Your task to perform on an android device: What's the weather going to be tomorrow? Image 0: 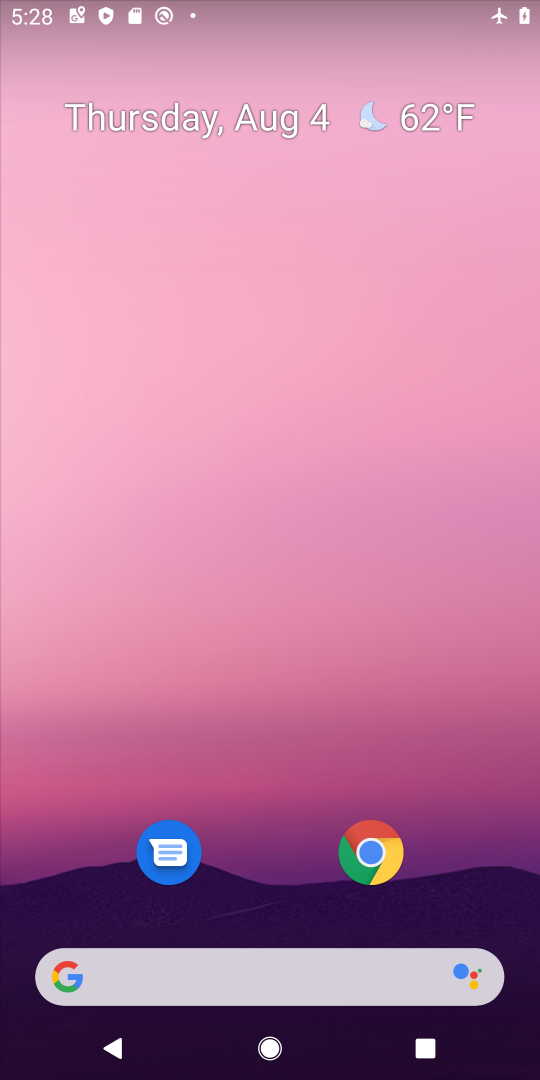
Step 0: press home button
Your task to perform on an android device: What's the weather going to be tomorrow? Image 1: 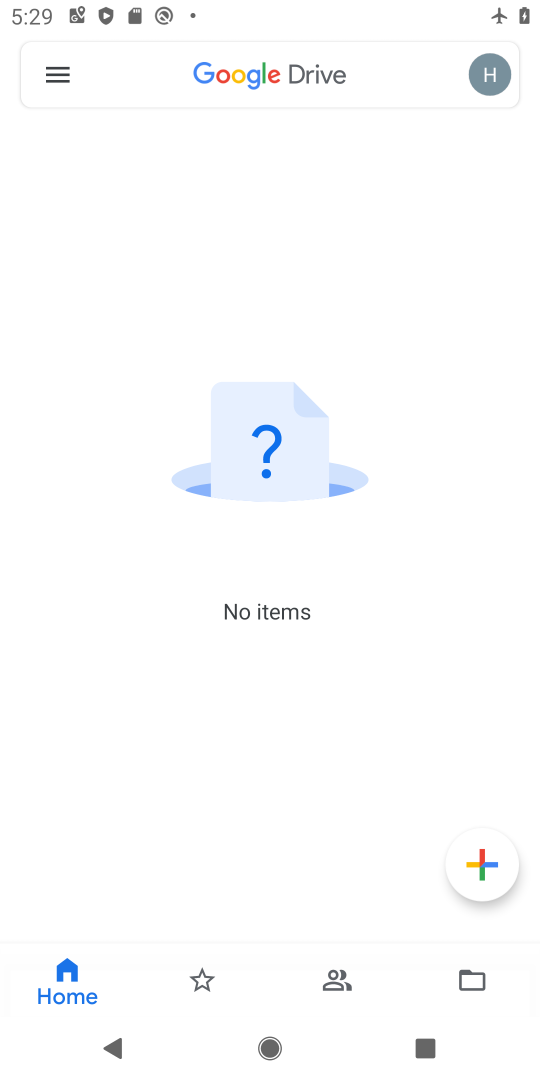
Step 1: drag from (276, 791) to (260, 491)
Your task to perform on an android device: What's the weather going to be tomorrow? Image 2: 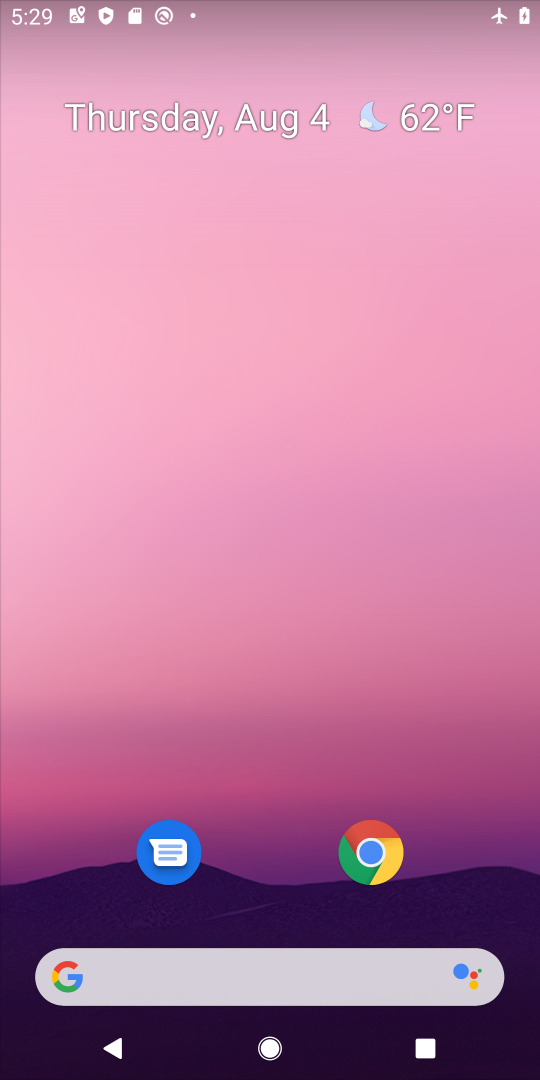
Step 2: drag from (271, 913) to (265, 192)
Your task to perform on an android device: What's the weather going to be tomorrow? Image 3: 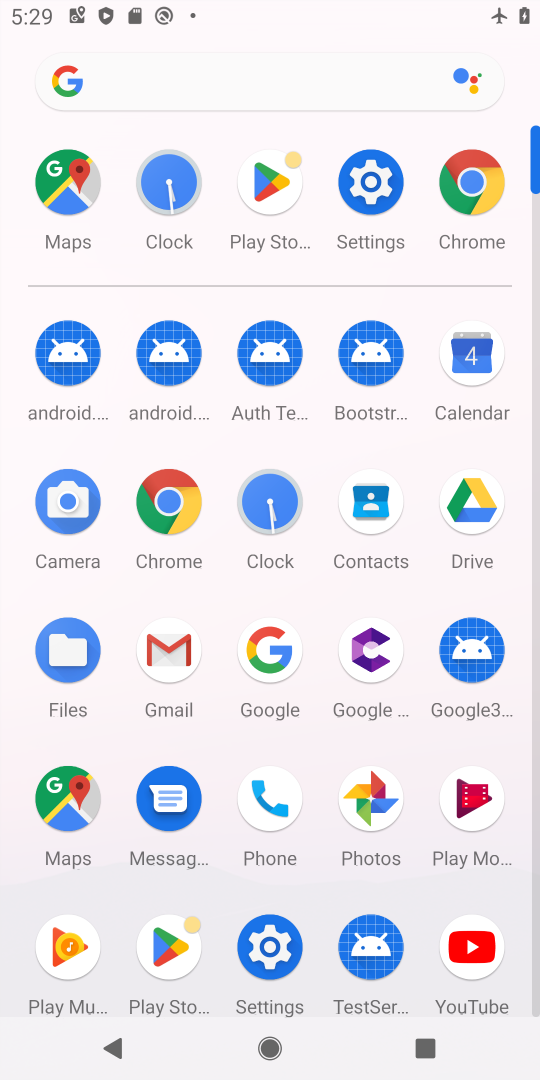
Step 3: click (284, 640)
Your task to perform on an android device: What's the weather going to be tomorrow? Image 4: 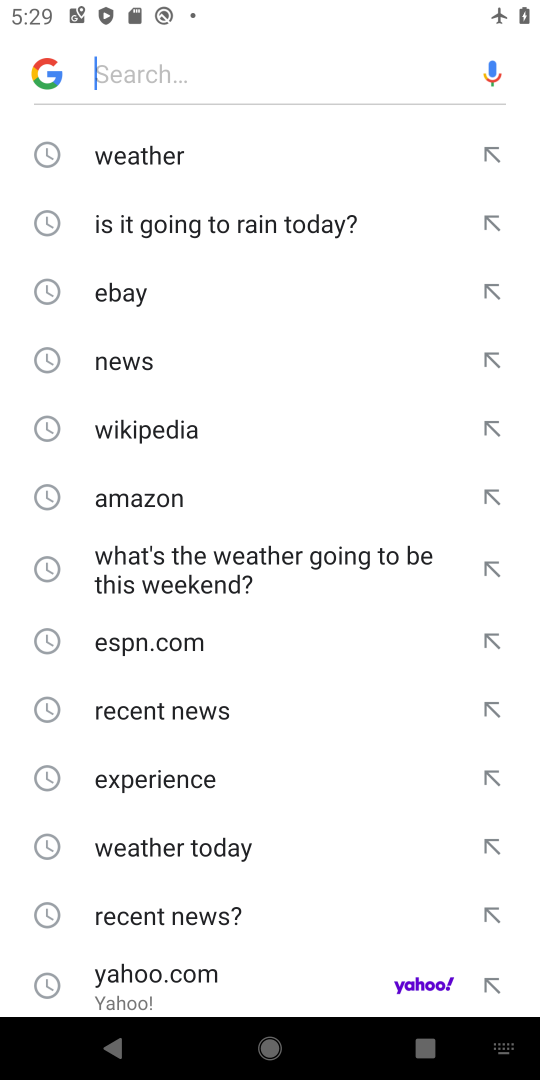
Step 4: click (140, 153)
Your task to perform on an android device: What's the weather going to be tomorrow? Image 5: 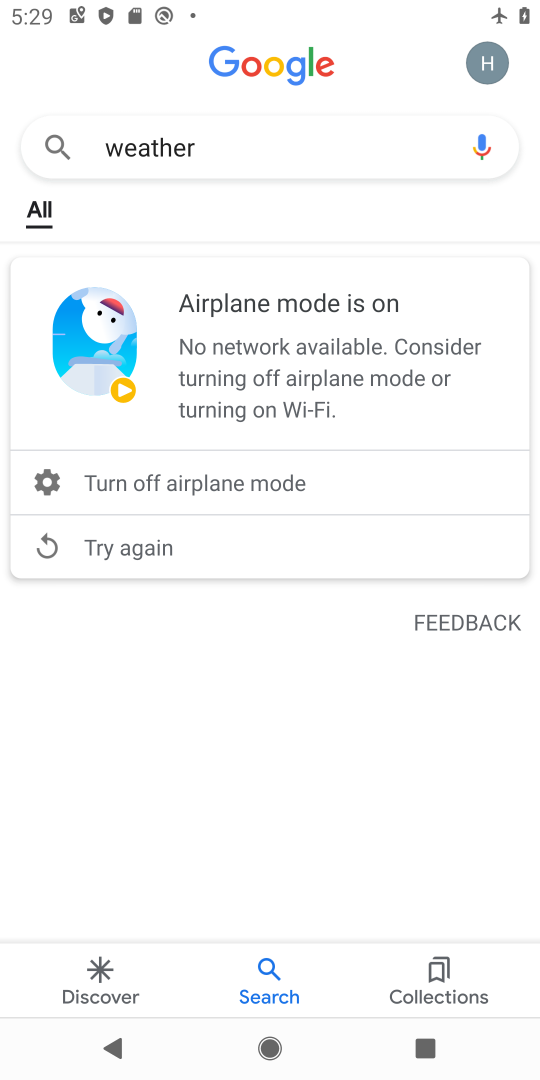
Step 5: task complete